Your task to perform on an android device: Open notification settings Image 0: 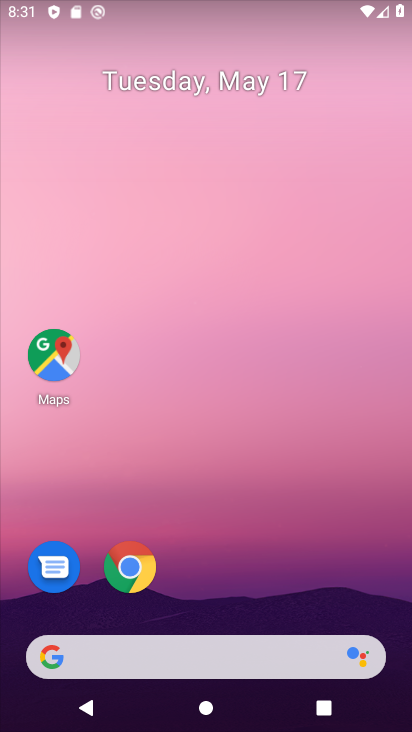
Step 0: drag from (205, 611) to (209, 337)
Your task to perform on an android device: Open notification settings Image 1: 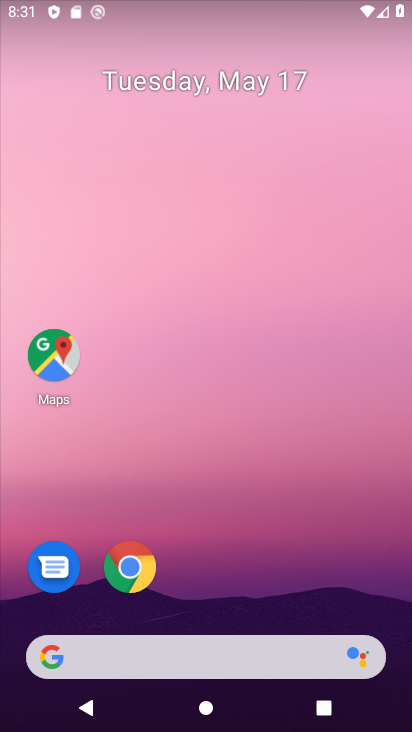
Step 1: drag from (220, 546) to (224, 179)
Your task to perform on an android device: Open notification settings Image 2: 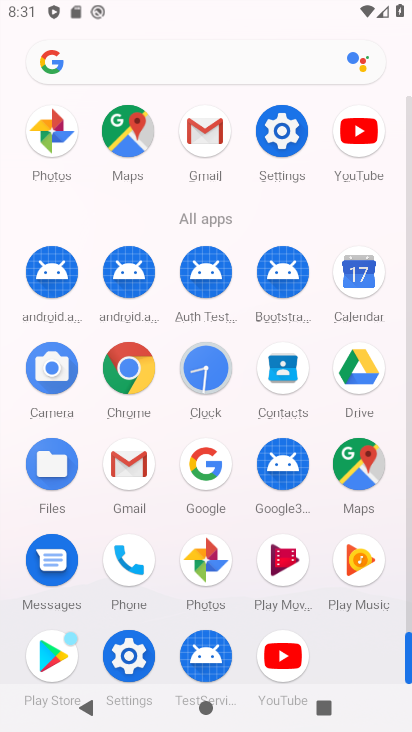
Step 2: click (280, 140)
Your task to perform on an android device: Open notification settings Image 3: 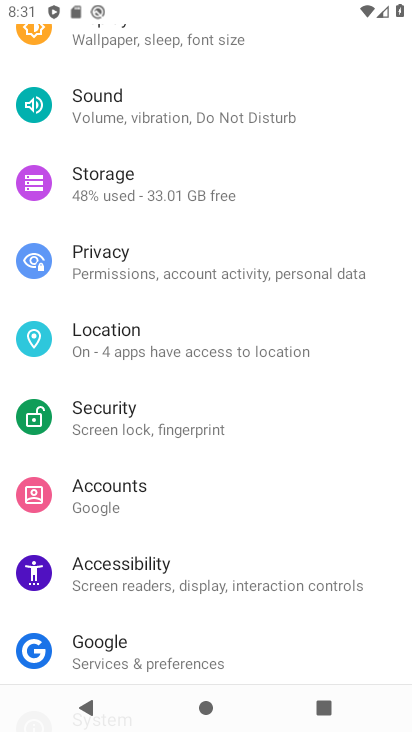
Step 3: drag from (252, 536) to (252, 570)
Your task to perform on an android device: Open notification settings Image 4: 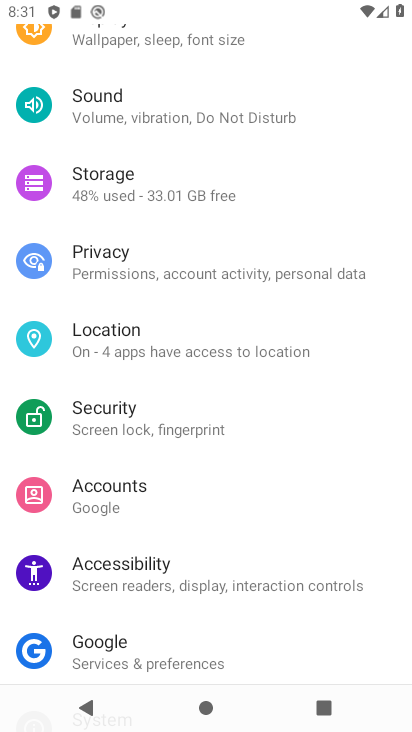
Step 4: drag from (208, 96) to (168, 513)
Your task to perform on an android device: Open notification settings Image 5: 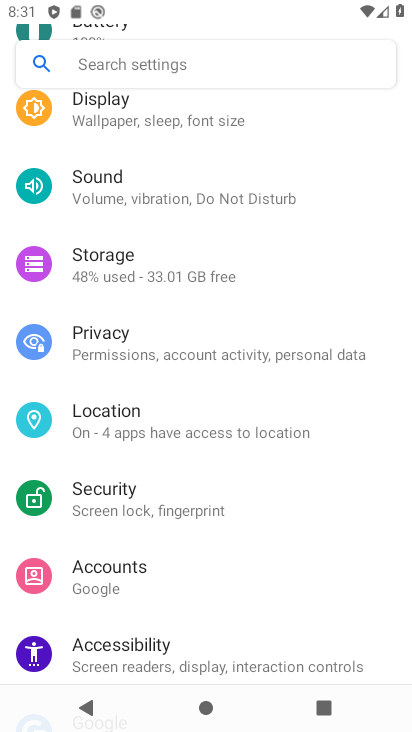
Step 5: drag from (217, 96) to (179, 564)
Your task to perform on an android device: Open notification settings Image 6: 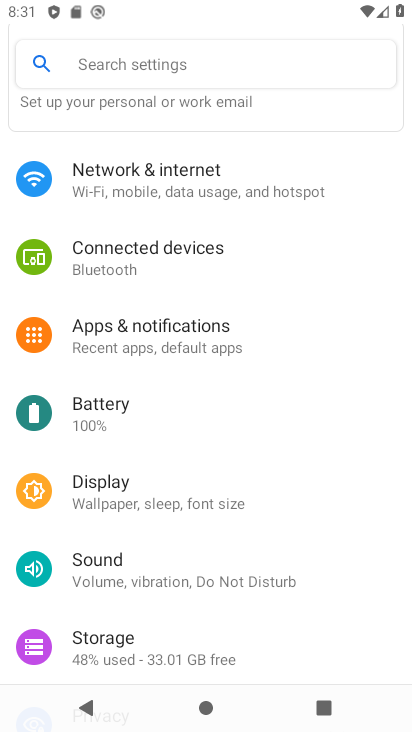
Step 6: click (172, 331)
Your task to perform on an android device: Open notification settings Image 7: 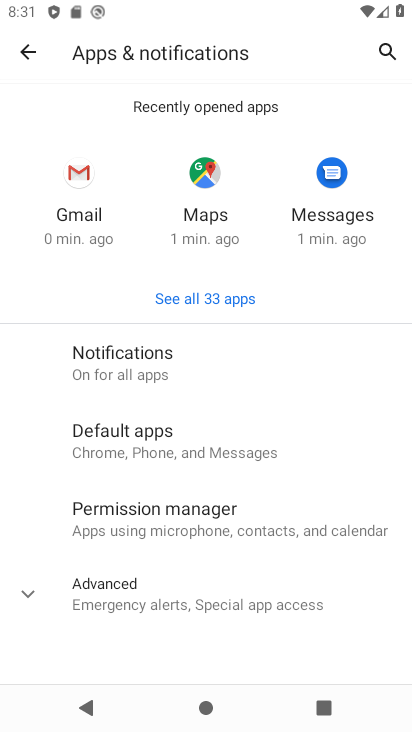
Step 7: click (107, 592)
Your task to perform on an android device: Open notification settings Image 8: 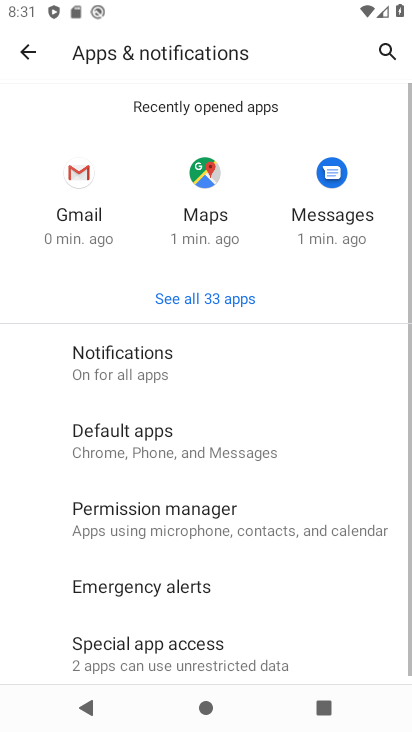
Step 8: task complete